Your task to perform on an android device: turn on airplane mode Image 0: 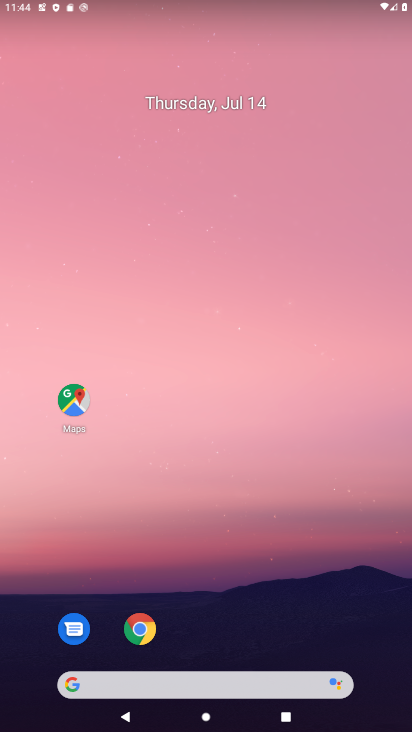
Step 0: drag from (269, 34) to (272, 207)
Your task to perform on an android device: turn on airplane mode Image 1: 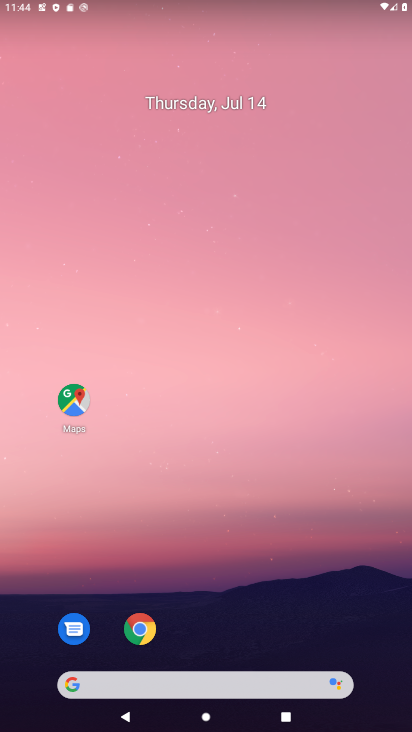
Step 1: drag from (363, 3) to (343, 227)
Your task to perform on an android device: turn on airplane mode Image 2: 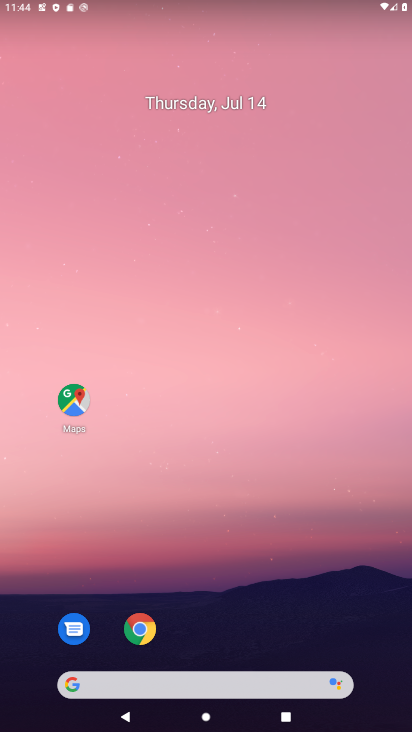
Step 2: drag from (317, 0) to (303, 474)
Your task to perform on an android device: turn on airplane mode Image 3: 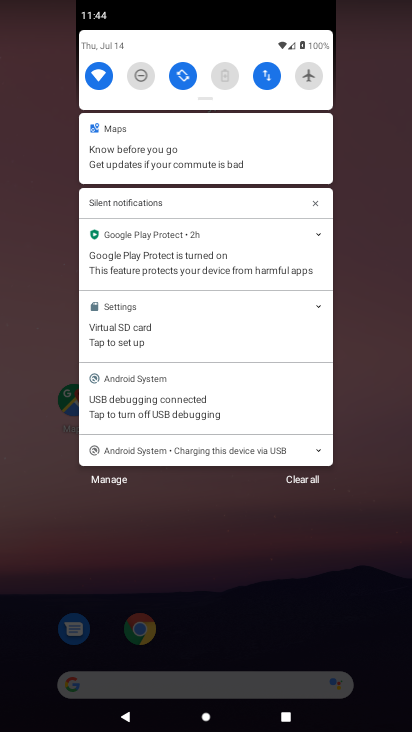
Step 3: click (314, 72)
Your task to perform on an android device: turn on airplane mode Image 4: 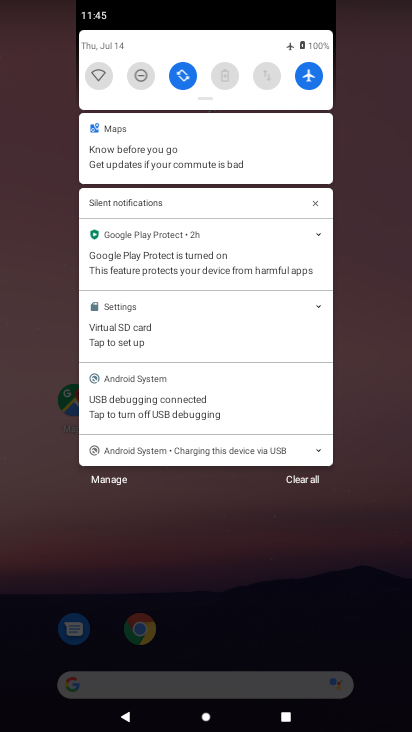
Step 4: task complete